Your task to perform on an android device: turn on wifi Image 0: 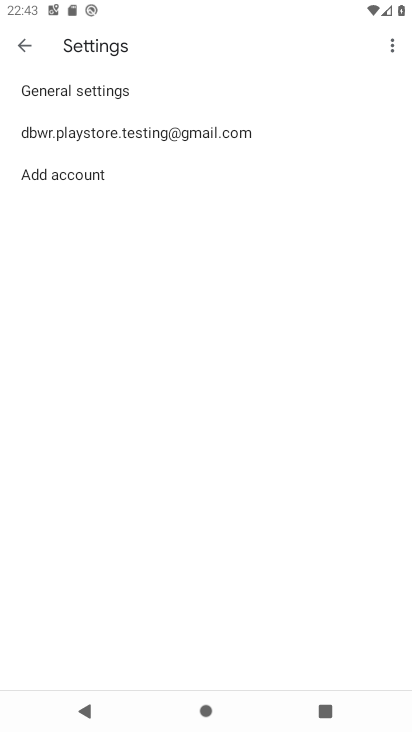
Step 0: press home button
Your task to perform on an android device: turn on wifi Image 1: 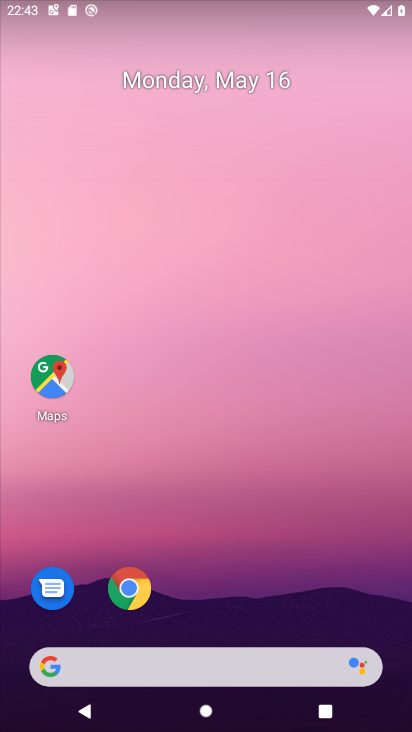
Step 1: task complete